Your task to perform on an android device: search for starred emails in the gmail app Image 0: 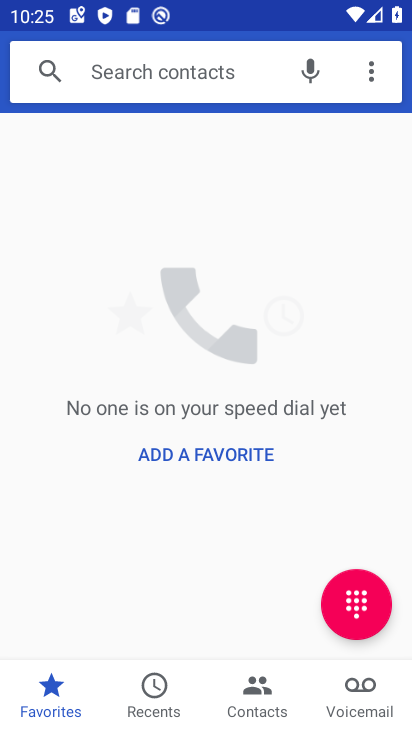
Step 0: press home button
Your task to perform on an android device: search for starred emails in the gmail app Image 1: 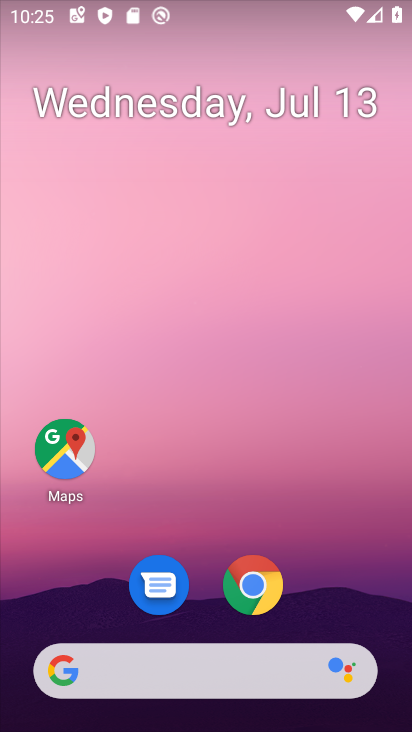
Step 1: drag from (324, 593) to (291, 119)
Your task to perform on an android device: search for starred emails in the gmail app Image 2: 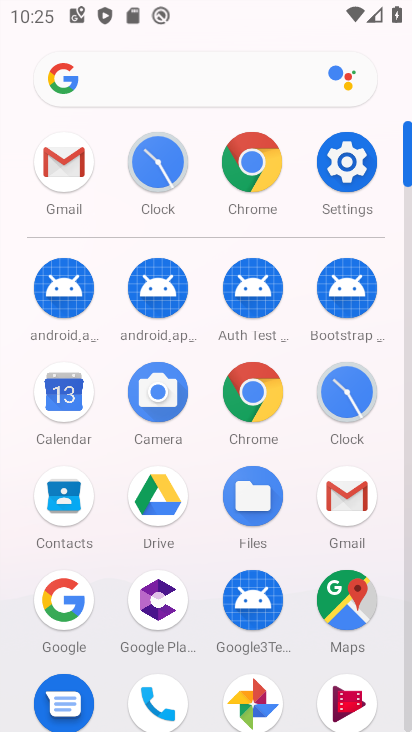
Step 2: click (62, 160)
Your task to perform on an android device: search for starred emails in the gmail app Image 3: 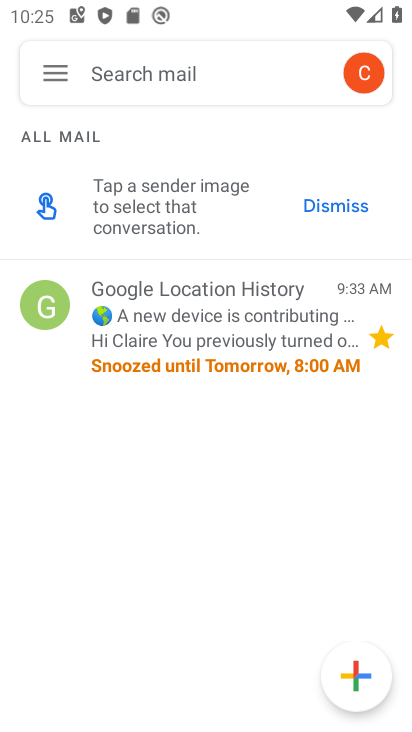
Step 3: click (48, 73)
Your task to perform on an android device: search for starred emails in the gmail app Image 4: 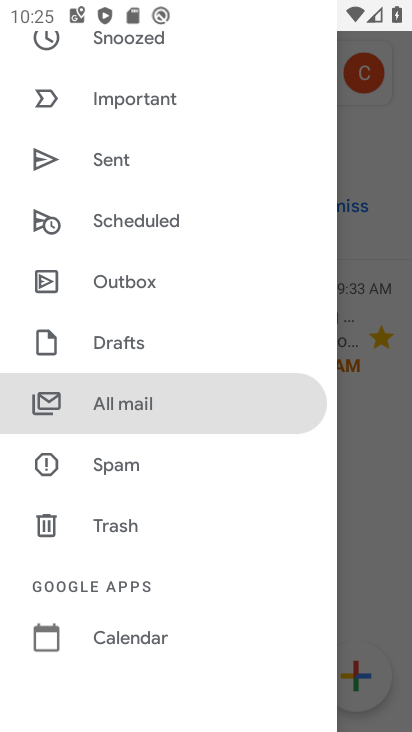
Step 4: drag from (142, 164) to (190, 410)
Your task to perform on an android device: search for starred emails in the gmail app Image 5: 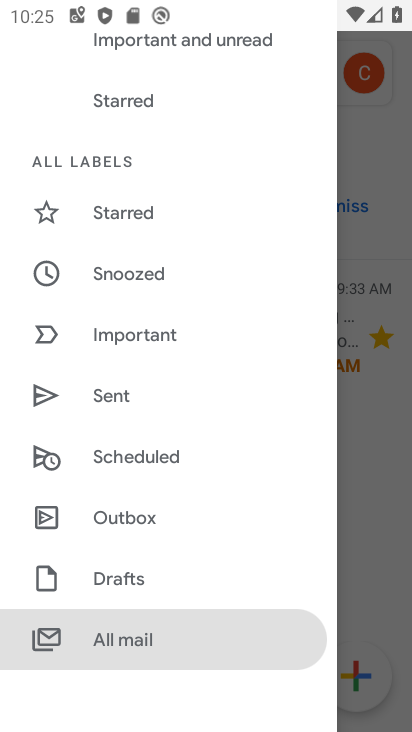
Step 5: click (134, 203)
Your task to perform on an android device: search for starred emails in the gmail app Image 6: 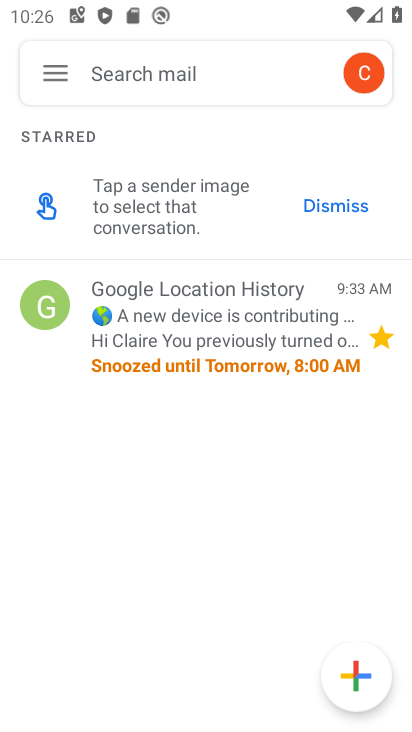
Step 6: task complete